Your task to perform on an android device: open app "Microsoft Outlook" Image 0: 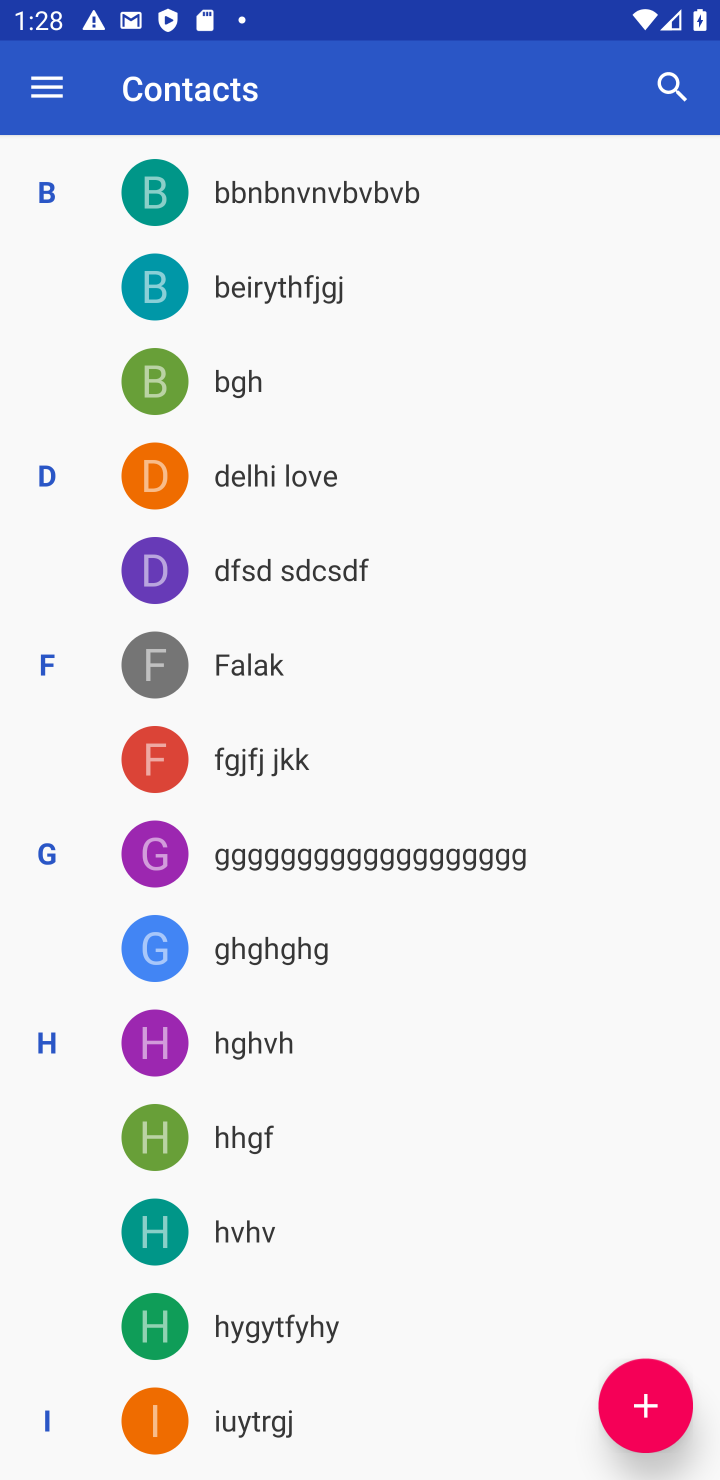
Step 0: press home button
Your task to perform on an android device: open app "Microsoft Outlook" Image 1: 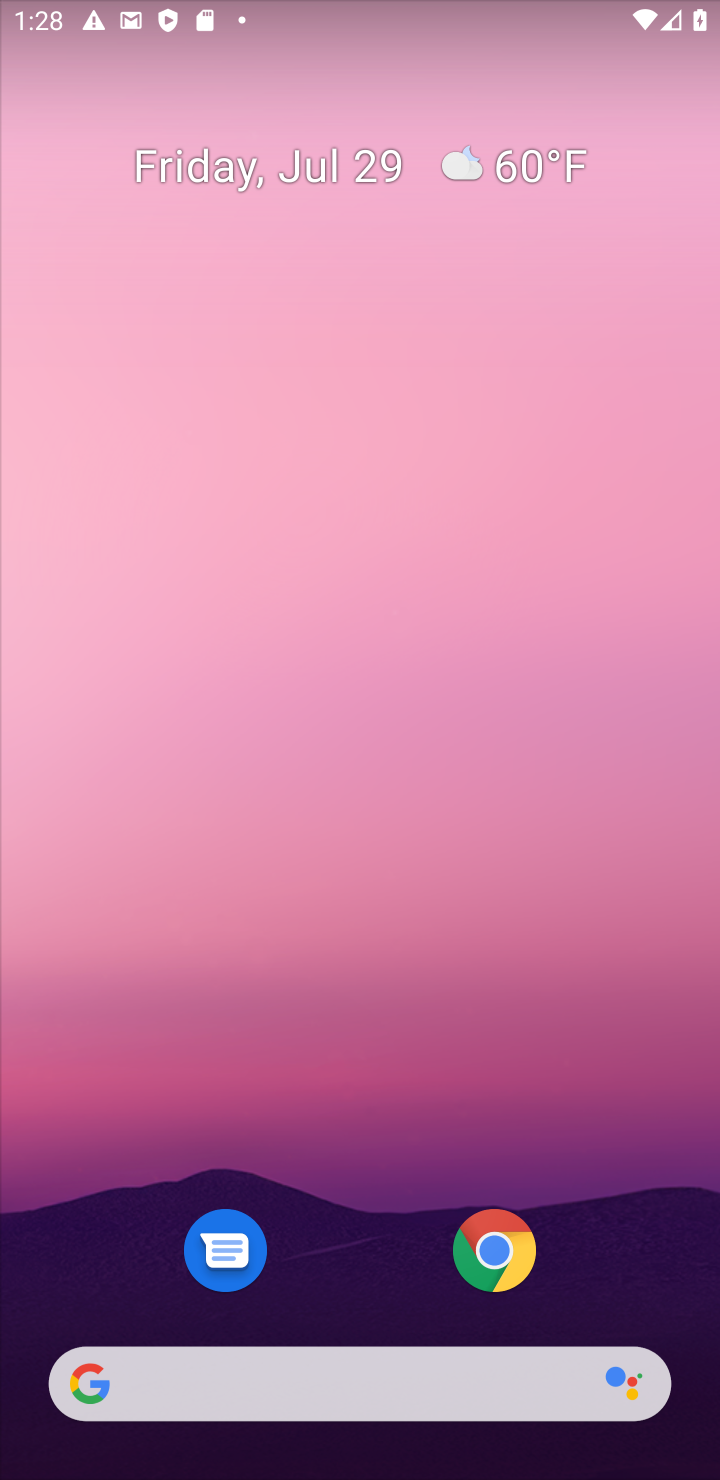
Step 1: drag from (373, 1310) to (357, 180)
Your task to perform on an android device: open app "Microsoft Outlook" Image 2: 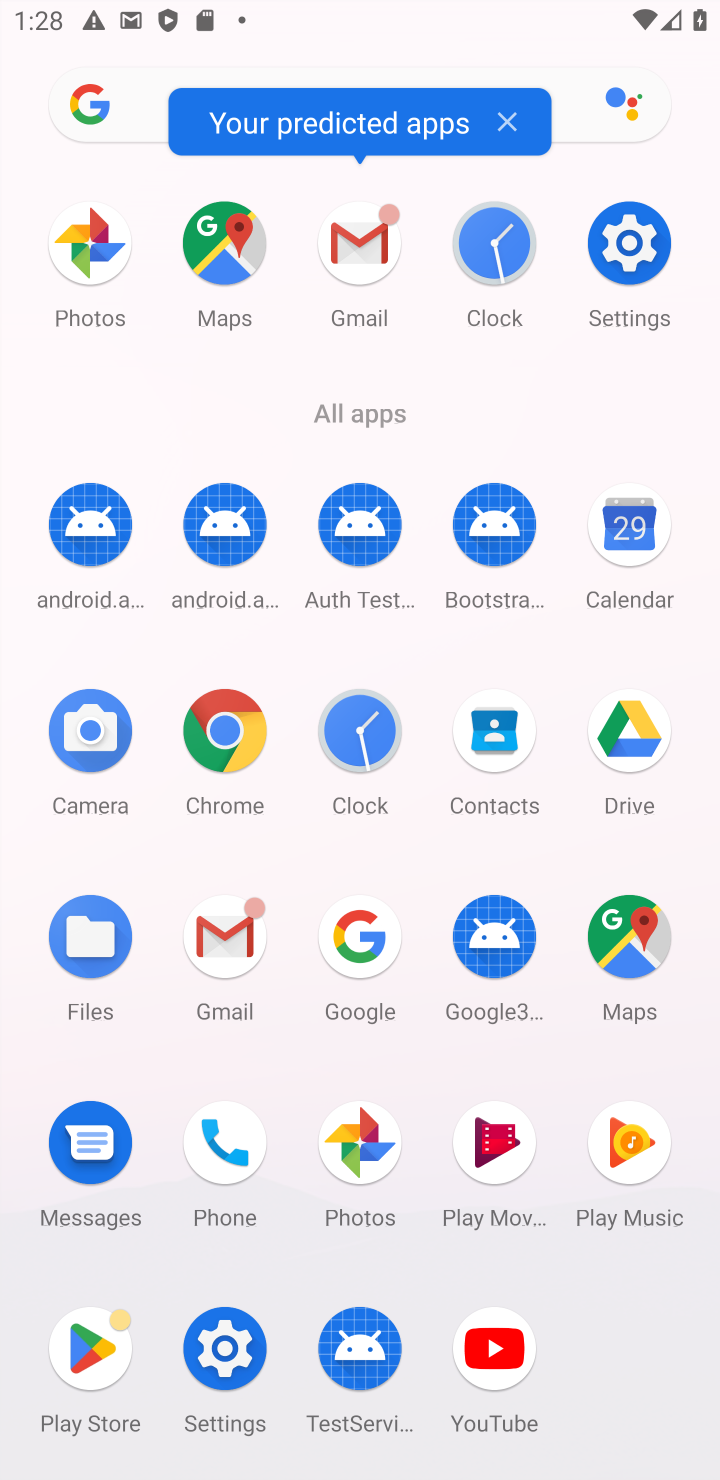
Step 2: click (96, 1347)
Your task to perform on an android device: open app "Microsoft Outlook" Image 3: 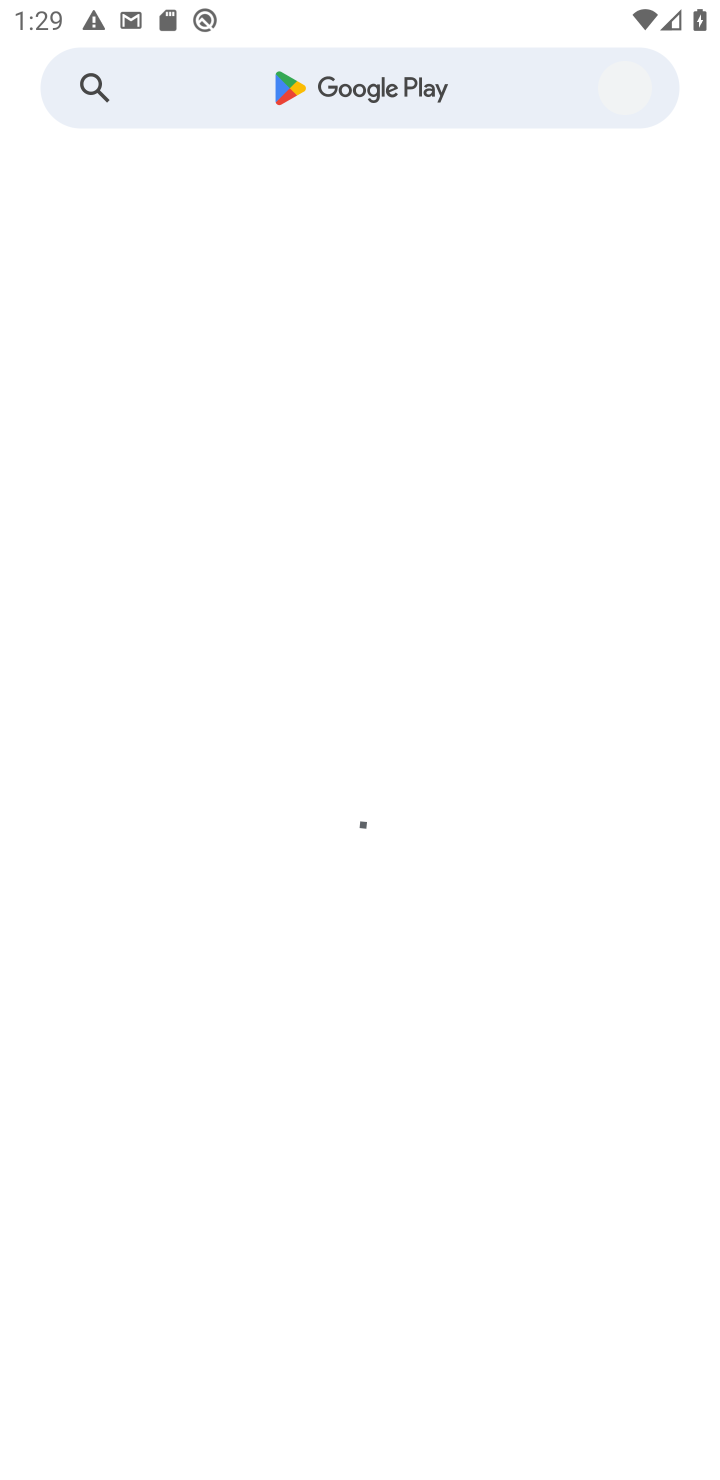
Step 3: click (421, 85)
Your task to perform on an android device: open app "Microsoft Outlook" Image 4: 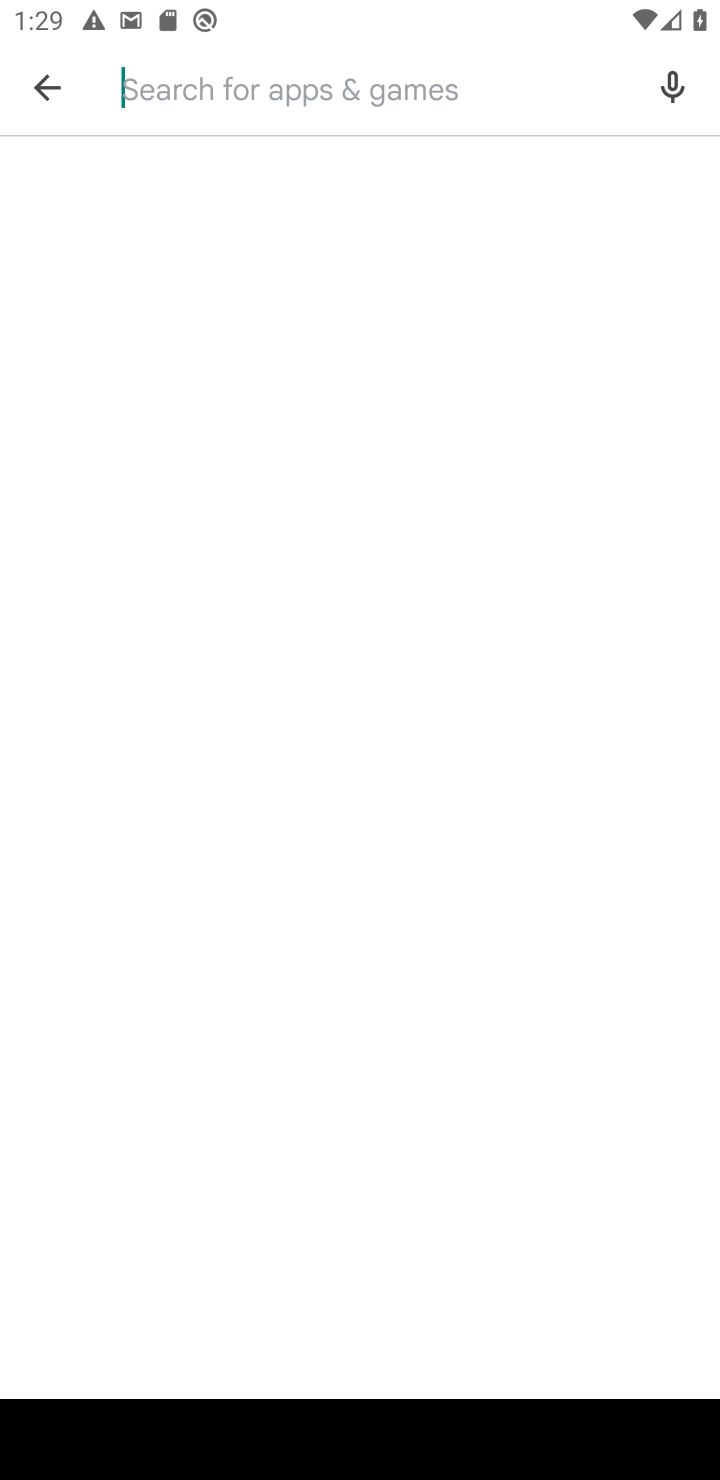
Step 4: type "microsoft outlook"
Your task to perform on an android device: open app "Microsoft Outlook" Image 5: 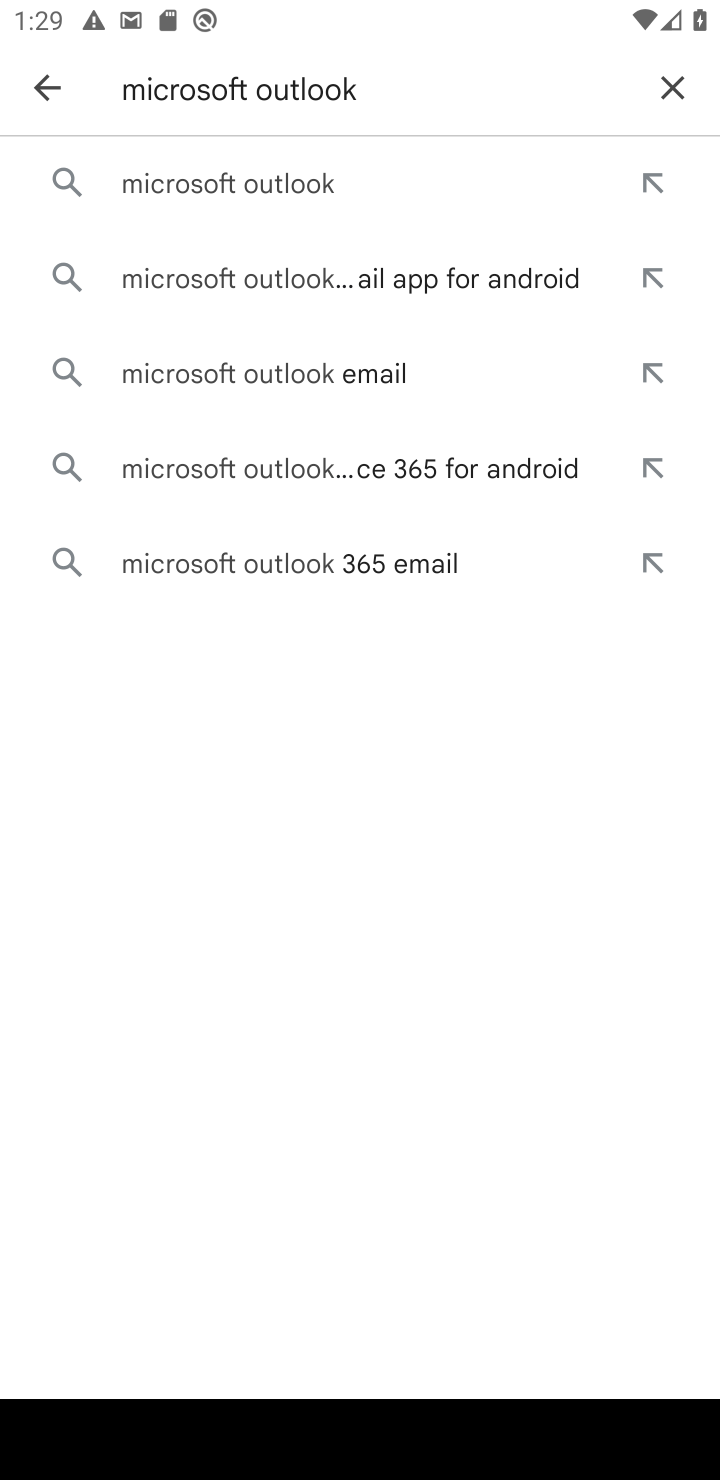
Step 5: click (263, 175)
Your task to perform on an android device: open app "Microsoft Outlook" Image 6: 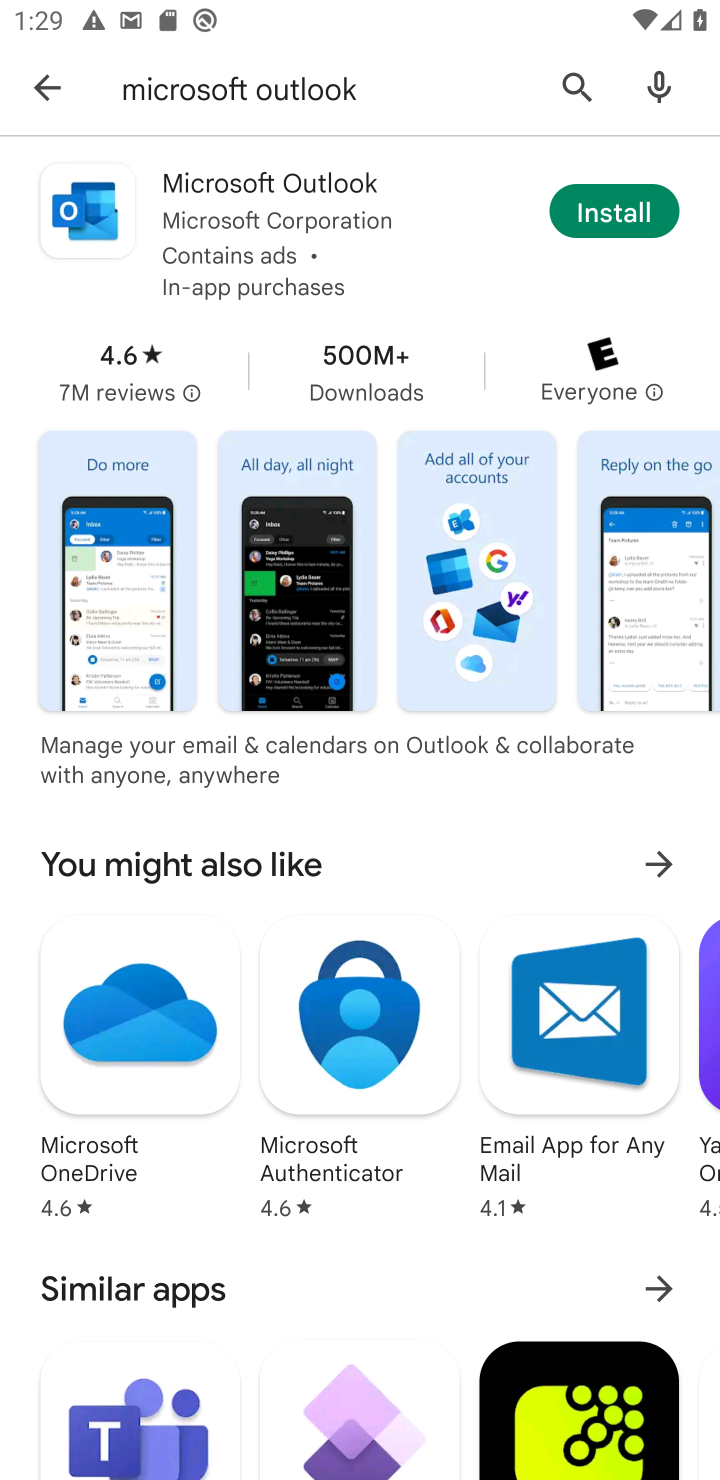
Step 6: click (263, 175)
Your task to perform on an android device: open app "Microsoft Outlook" Image 7: 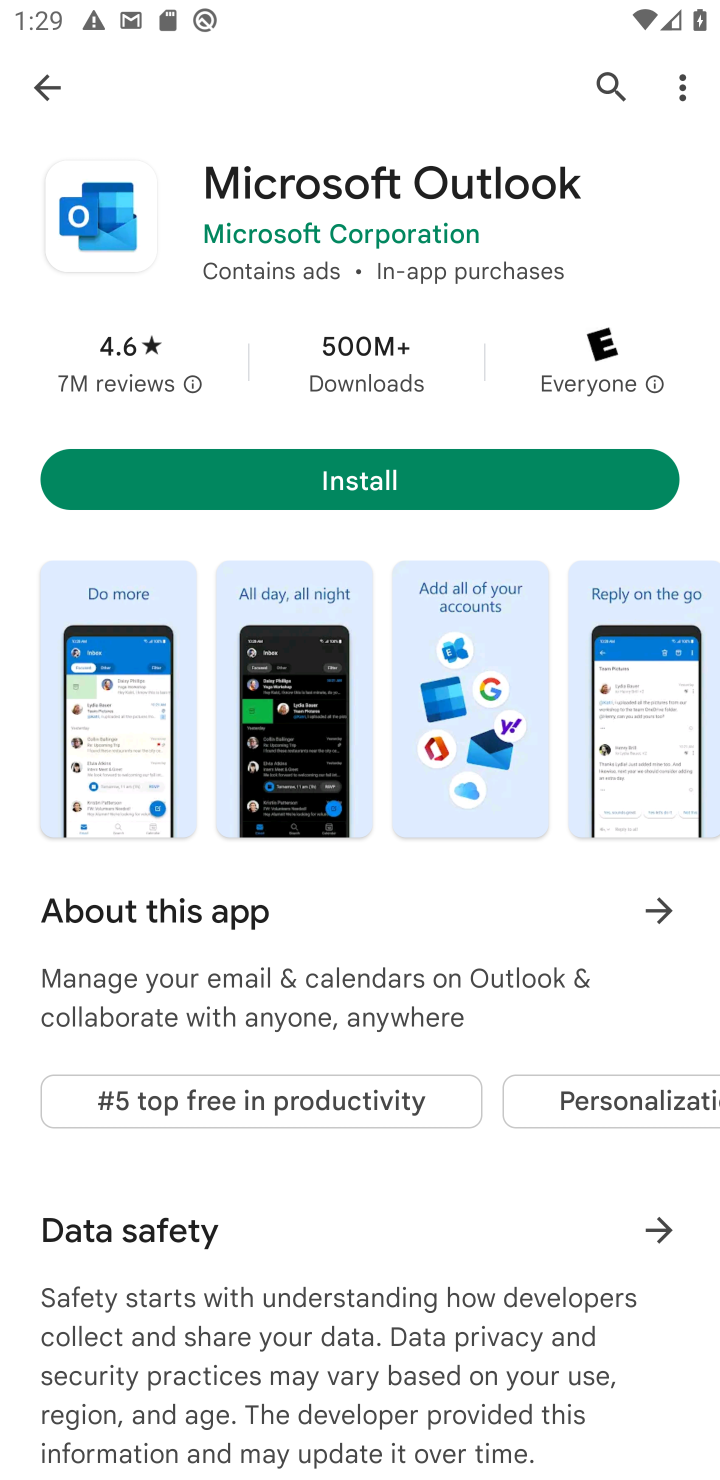
Step 7: task complete